Your task to perform on an android device: turn off location history Image 0: 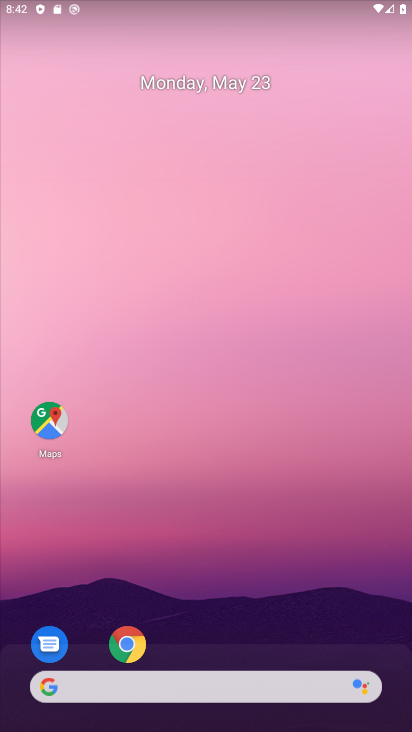
Step 0: drag from (217, 653) to (207, 43)
Your task to perform on an android device: turn off location history Image 1: 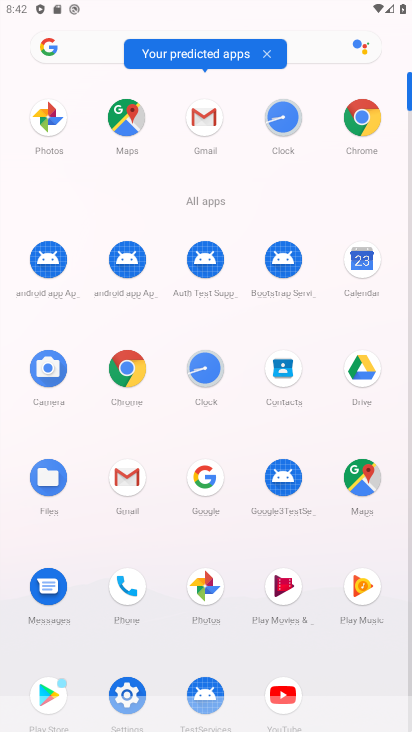
Step 1: click (128, 681)
Your task to perform on an android device: turn off location history Image 2: 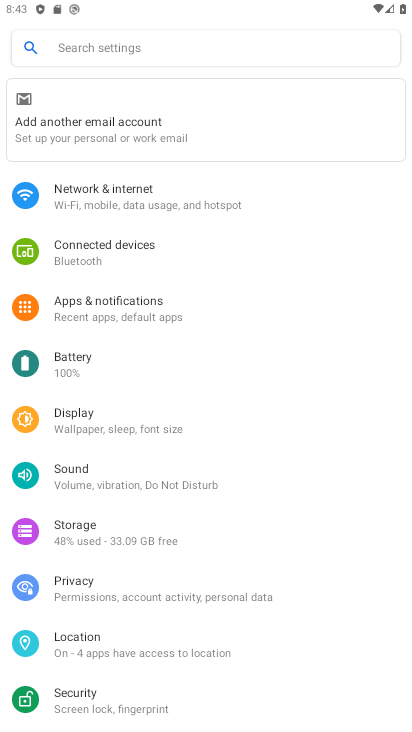
Step 2: click (115, 632)
Your task to perform on an android device: turn off location history Image 3: 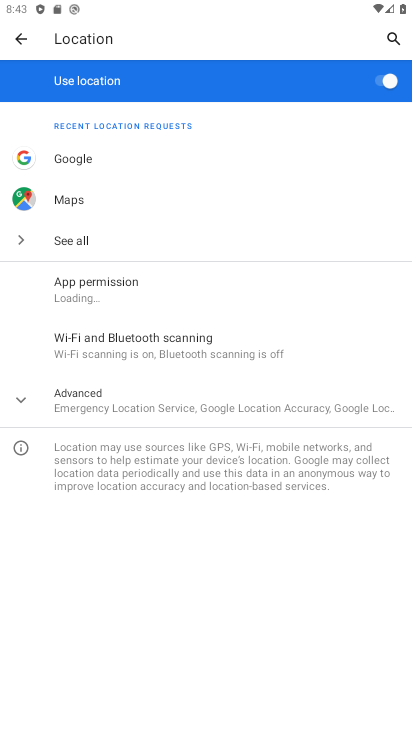
Step 3: click (32, 398)
Your task to perform on an android device: turn off location history Image 4: 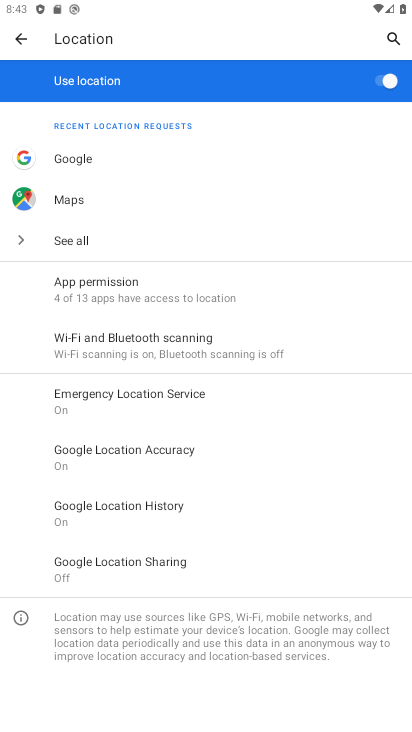
Step 4: click (121, 510)
Your task to perform on an android device: turn off location history Image 5: 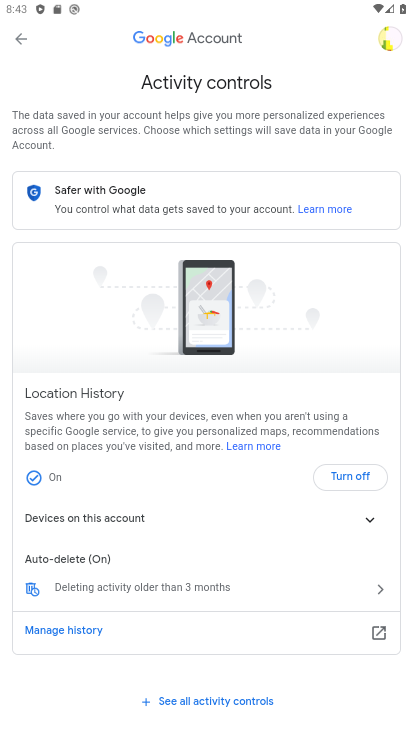
Step 5: drag from (194, 569) to (228, 172)
Your task to perform on an android device: turn off location history Image 6: 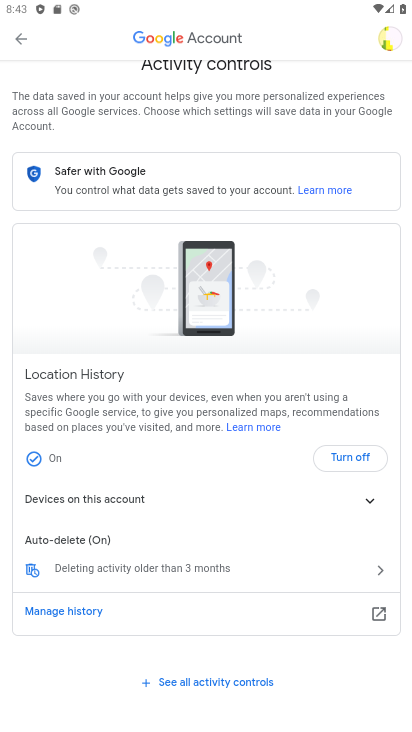
Step 6: drag from (202, 606) to (201, 233)
Your task to perform on an android device: turn off location history Image 7: 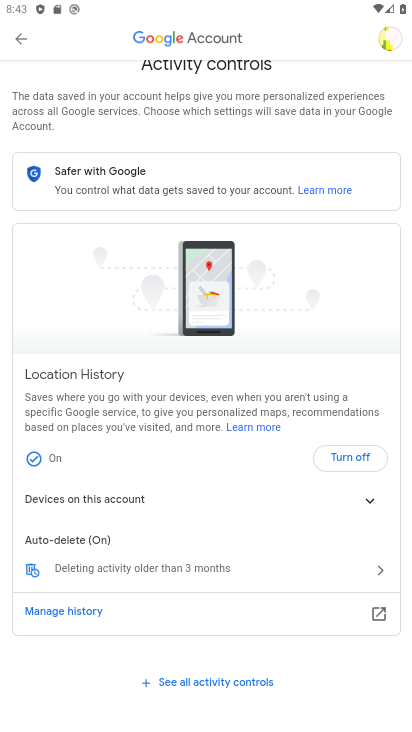
Step 7: click (353, 455)
Your task to perform on an android device: turn off location history Image 8: 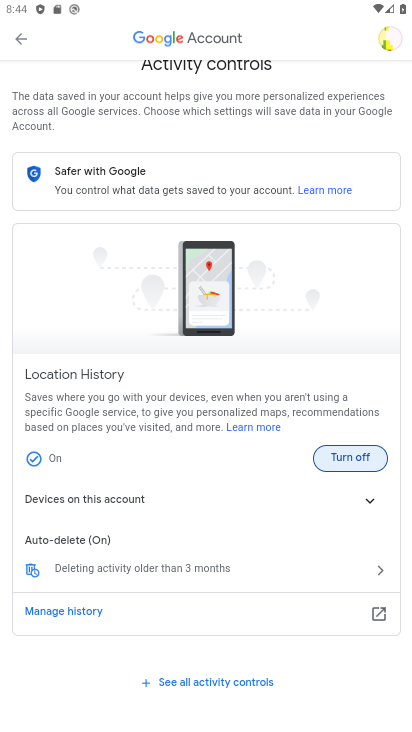
Step 8: click (347, 457)
Your task to perform on an android device: turn off location history Image 9: 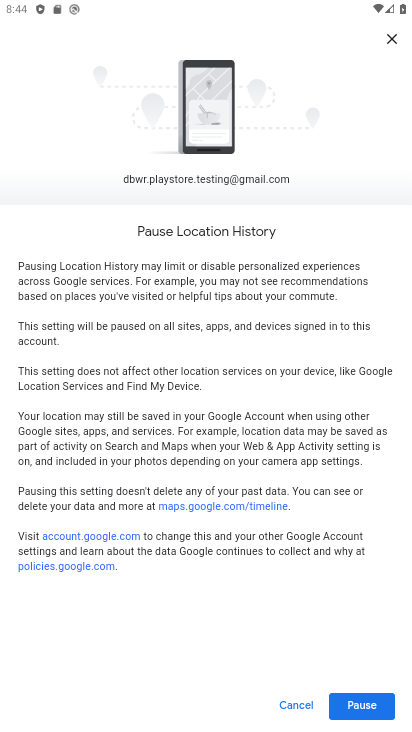
Step 9: click (355, 706)
Your task to perform on an android device: turn off location history Image 10: 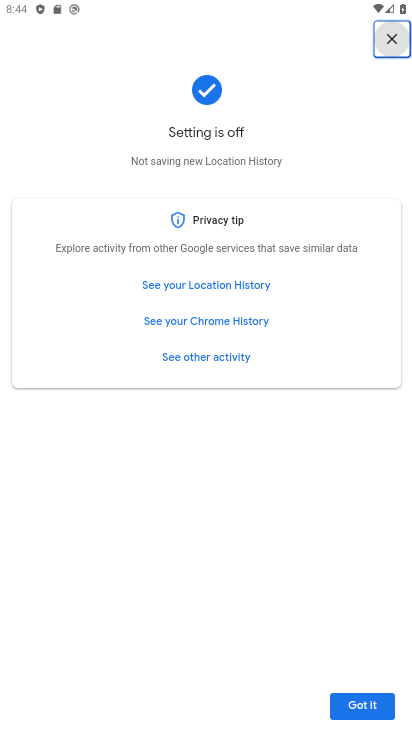
Step 10: click (363, 701)
Your task to perform on an android device: turn off location history Image 11: 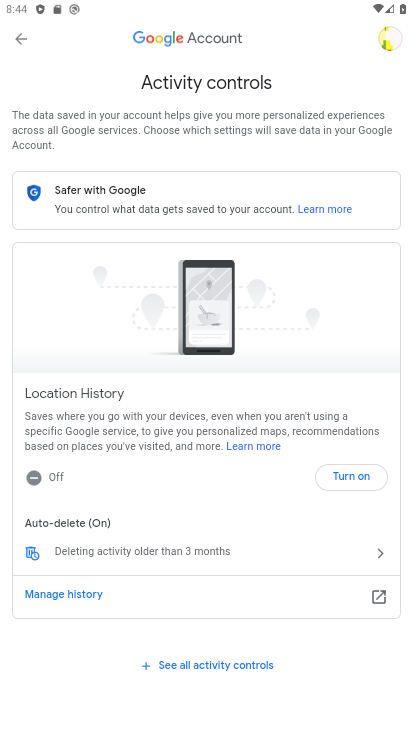
Step 11: task complete